Your task to perform on an android device: turn pop-ups off in chrome Image 0: 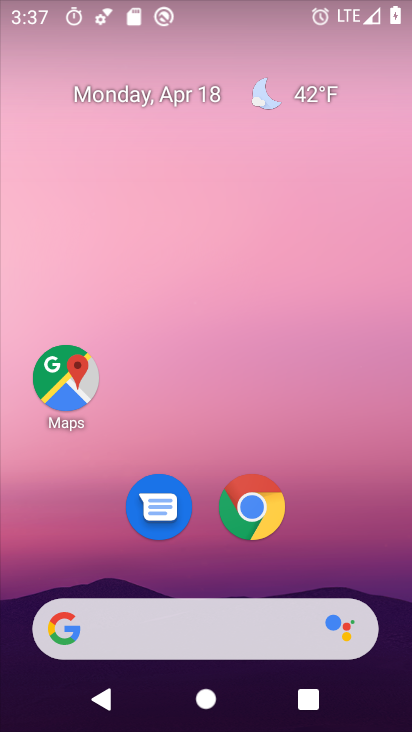
Step 0: click (255, 518)
Your task to perform on an android device: turn pop-ups off in chrome Image 1: 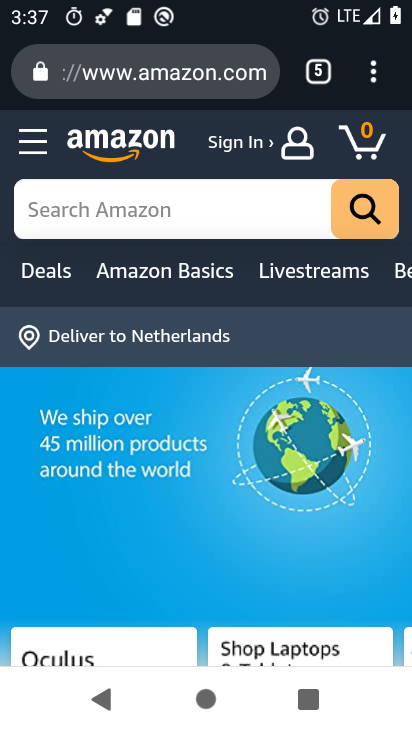
Step 1: click (370, 80)
Your task to perform on an android device: turn pop-ups off in chrome Image 2: 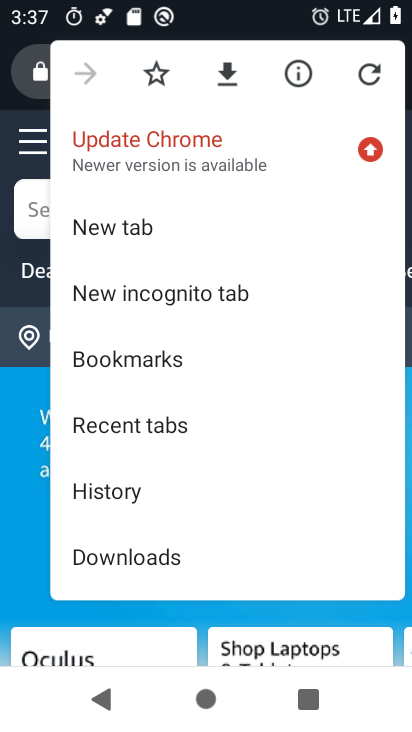
Step 2: drag from (226, 527) to (268, 232)
Your task to perform on an android device: turn pop-ups off in chrome Image 3: 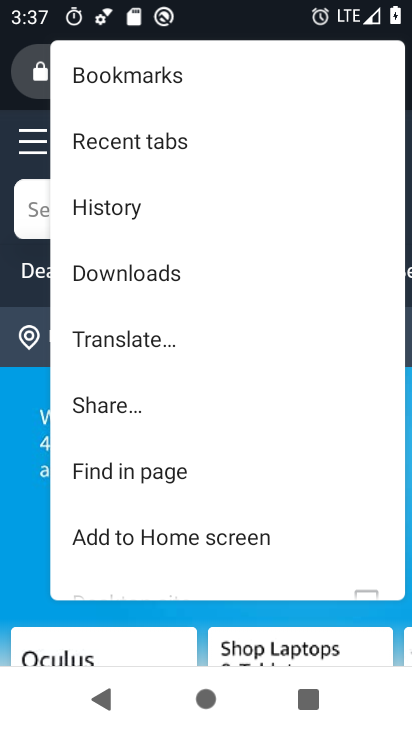
Step 3: drag from (218, 574) to (266, 250)
Your task to perform on an android device: turn pop-ups off in chrome Image 4: 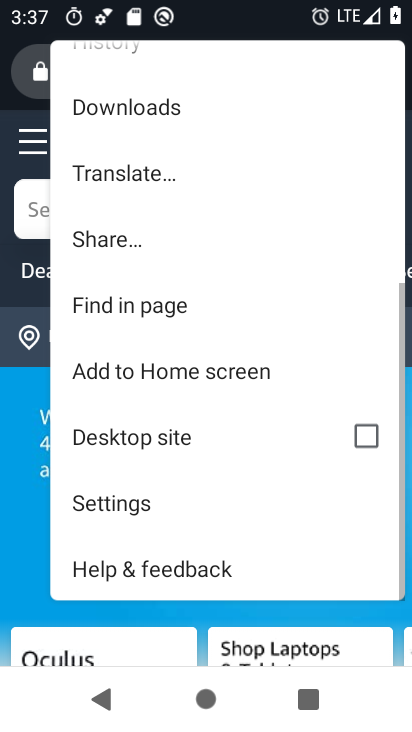
Step 4: click (144, 505)
Your task to perform on an android device: turn pop-ups off in chrome Image 5: 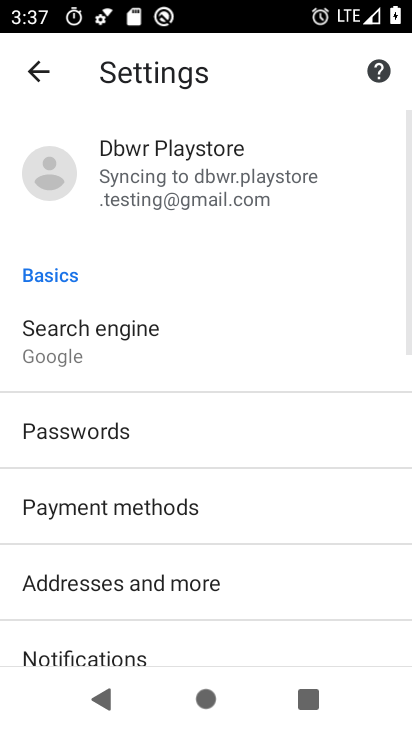
Step 5: drag from (288, 581) to (297, 354)
Your task to perform on an android device: turn pop-ups off in chrome Image 6: 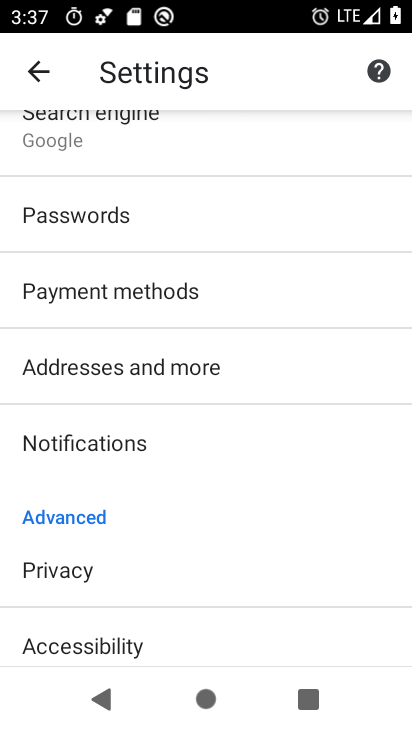
Step 6: drag from (293, 584) to (296, 271)
Your task to perform on an android device: turn pop-ups off in chrome Image 7: 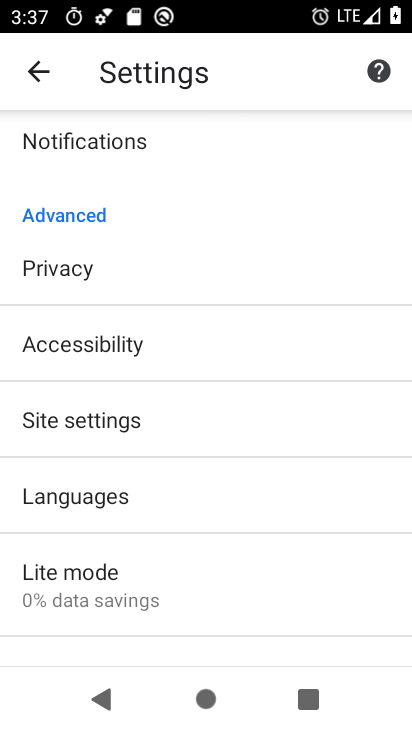
Step 7: drag from (276, 561) to (284, 296)
Your task to perform on an android device: turn pop-ups off in chrome Image 8: 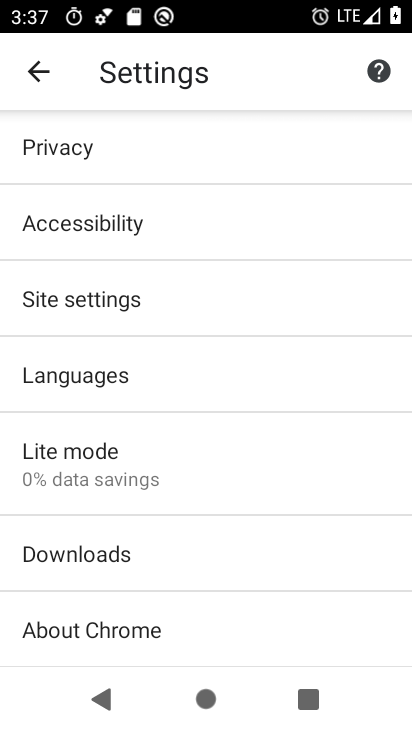
Step 8: click (126, 300)
Your task to perform on an android device: turn pop-ups off in chrome Image 9: 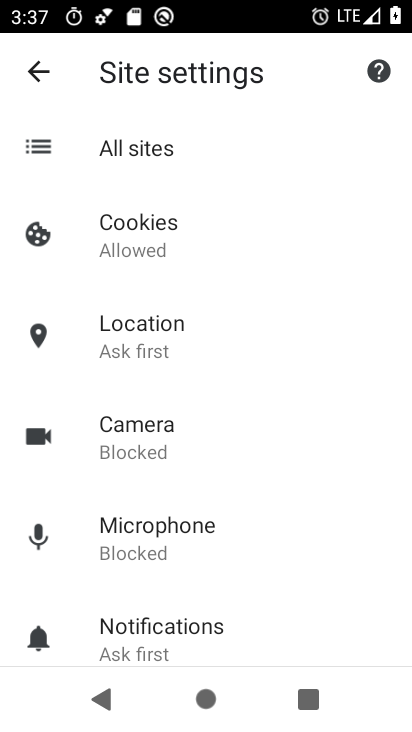
Step 9: drag from (266, 591) to (260, 326)
Your task to perform on an android device: turn pop-ups off in chrome Image 10: 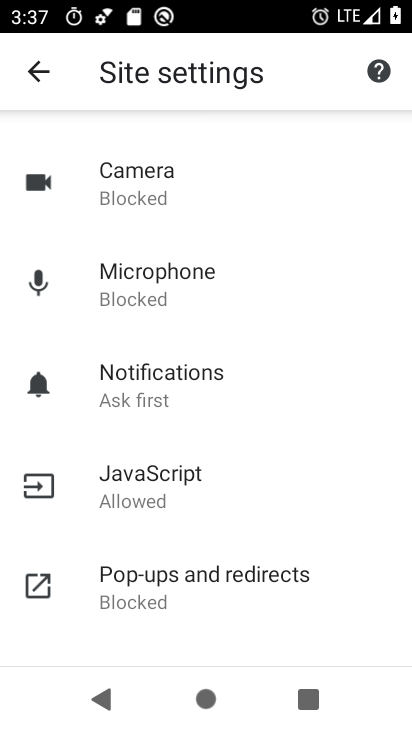
Step 10: drag from (267, 495) to (265, 367)
Your task to perform on an android device: turn pop-ups off in chrome Image 11: 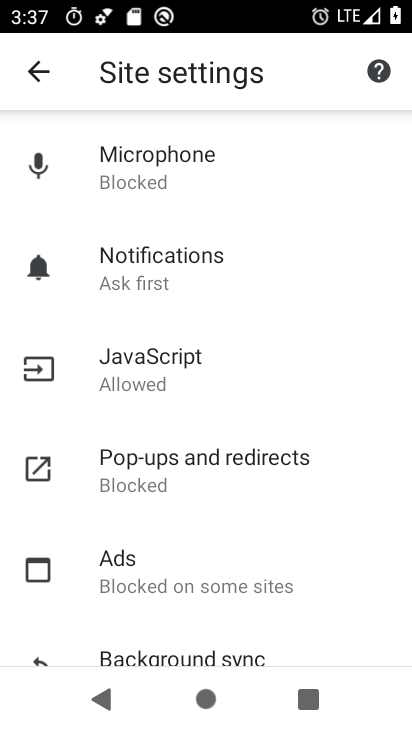
Step 11: click (275, 463)
Your task to perform on an android device: turn pop-ups off in chrome Image 12: 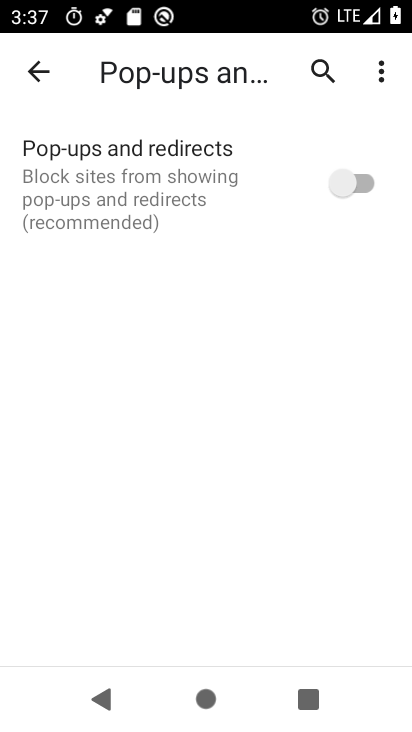
Step 12: task complete